Your task to perform on an android device: Go to network settings Image 0: 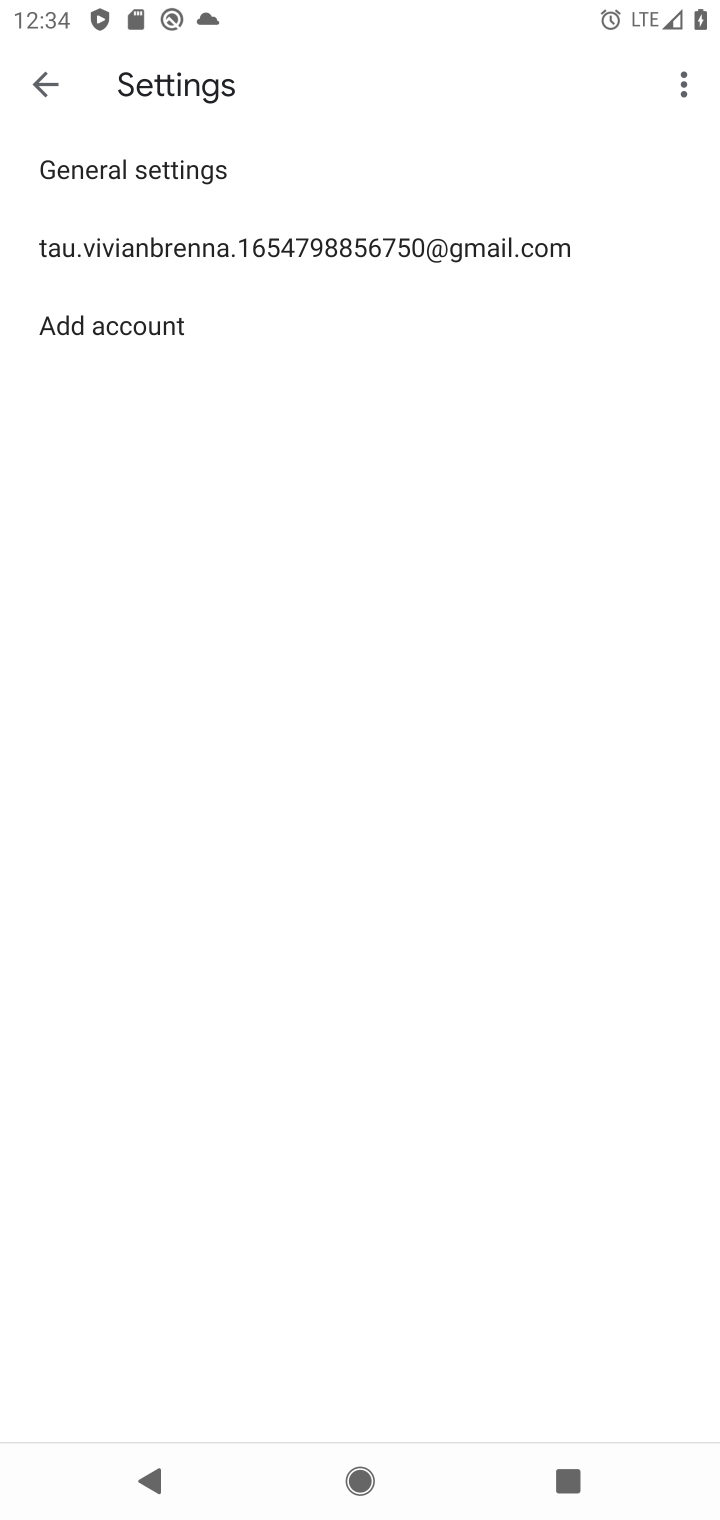
Step 0: click (38, 81)
Your task to perform on an android device: Go to network settings Image 1: 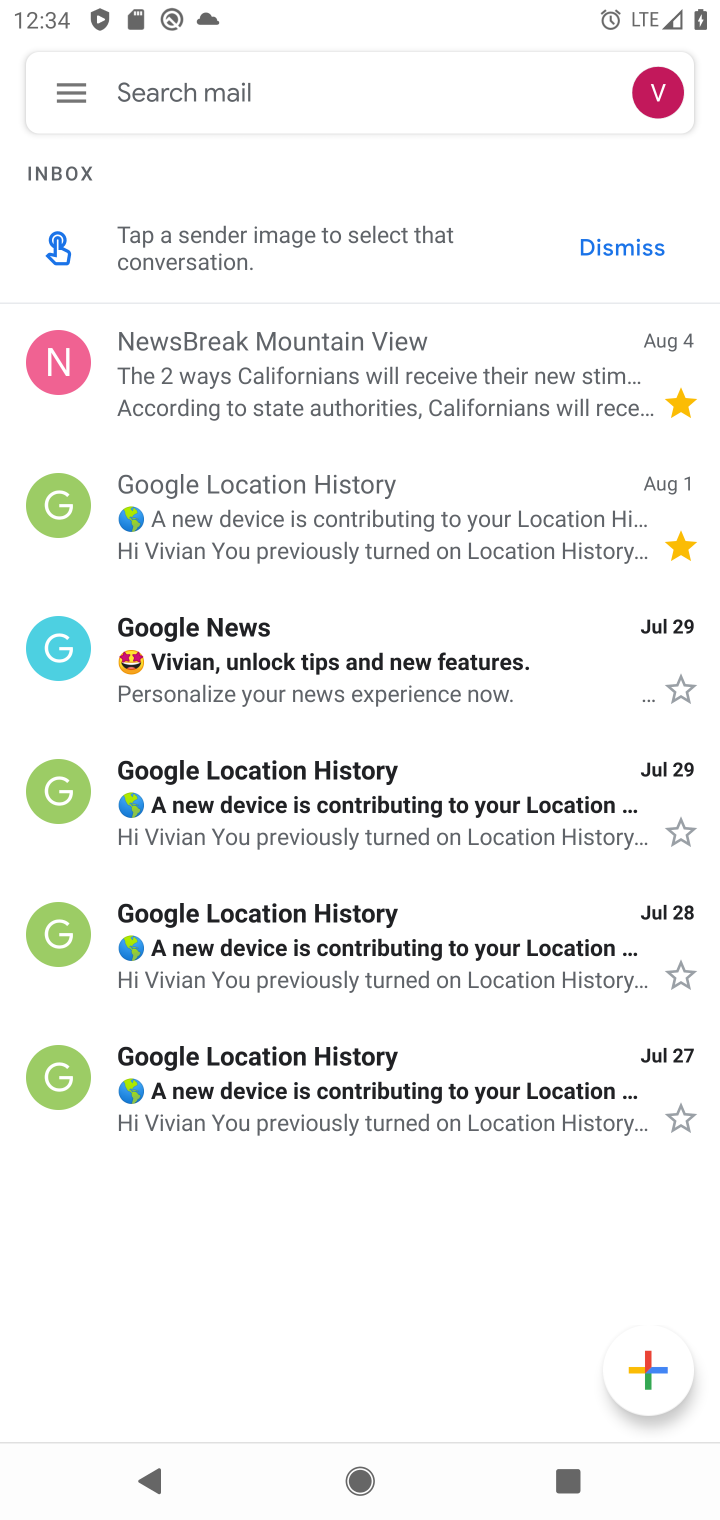
Step 1: press back button
Your task to perform on an android device: Go to network settings Image 2: 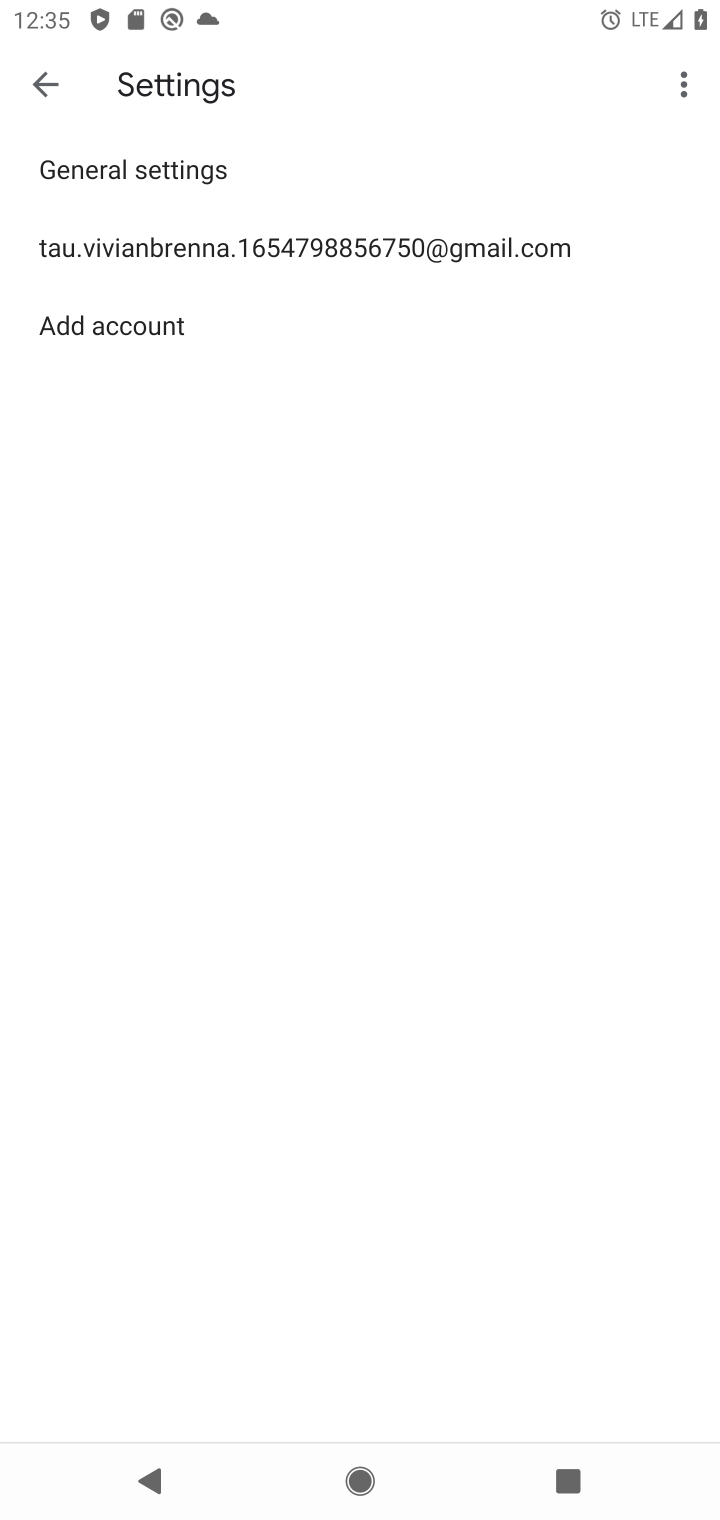
Step 2: press back button
Your task to perform on an android device: Go to network settings Image 3: 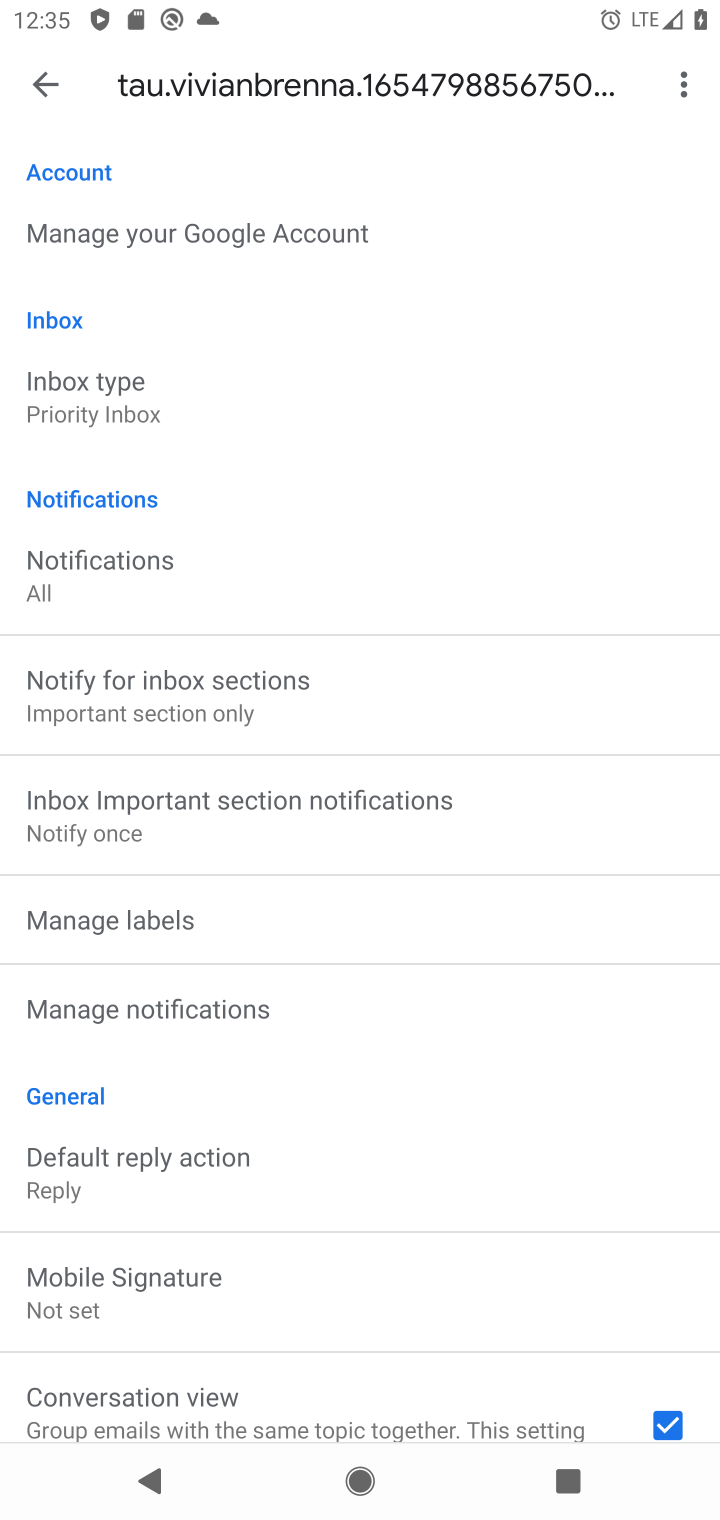
Step 3: press home button
Your task to perform on an android device: Go to network settings Image 4: 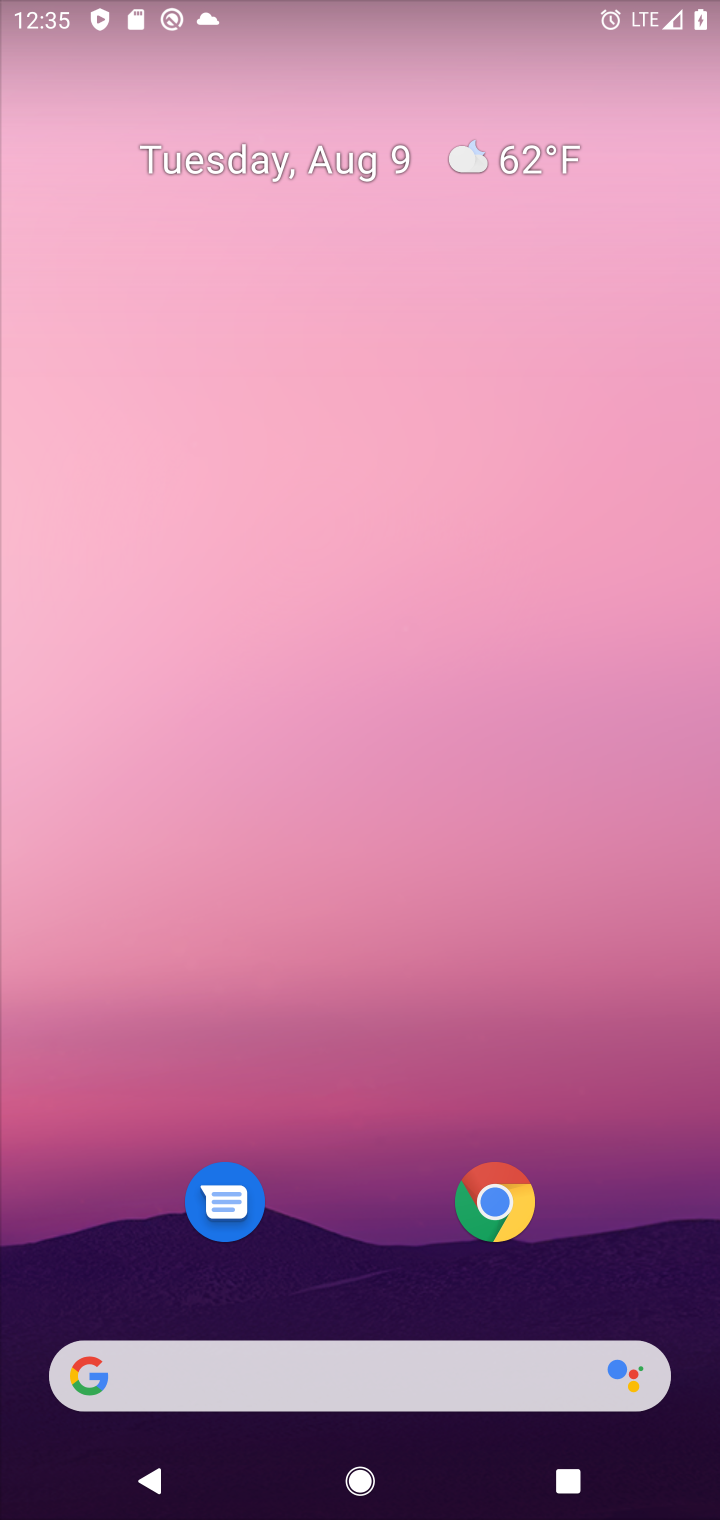
Step 4: drag from (404, 481) to (471, 209)
Your task to perform on an android device: Go to network settings Image 5: 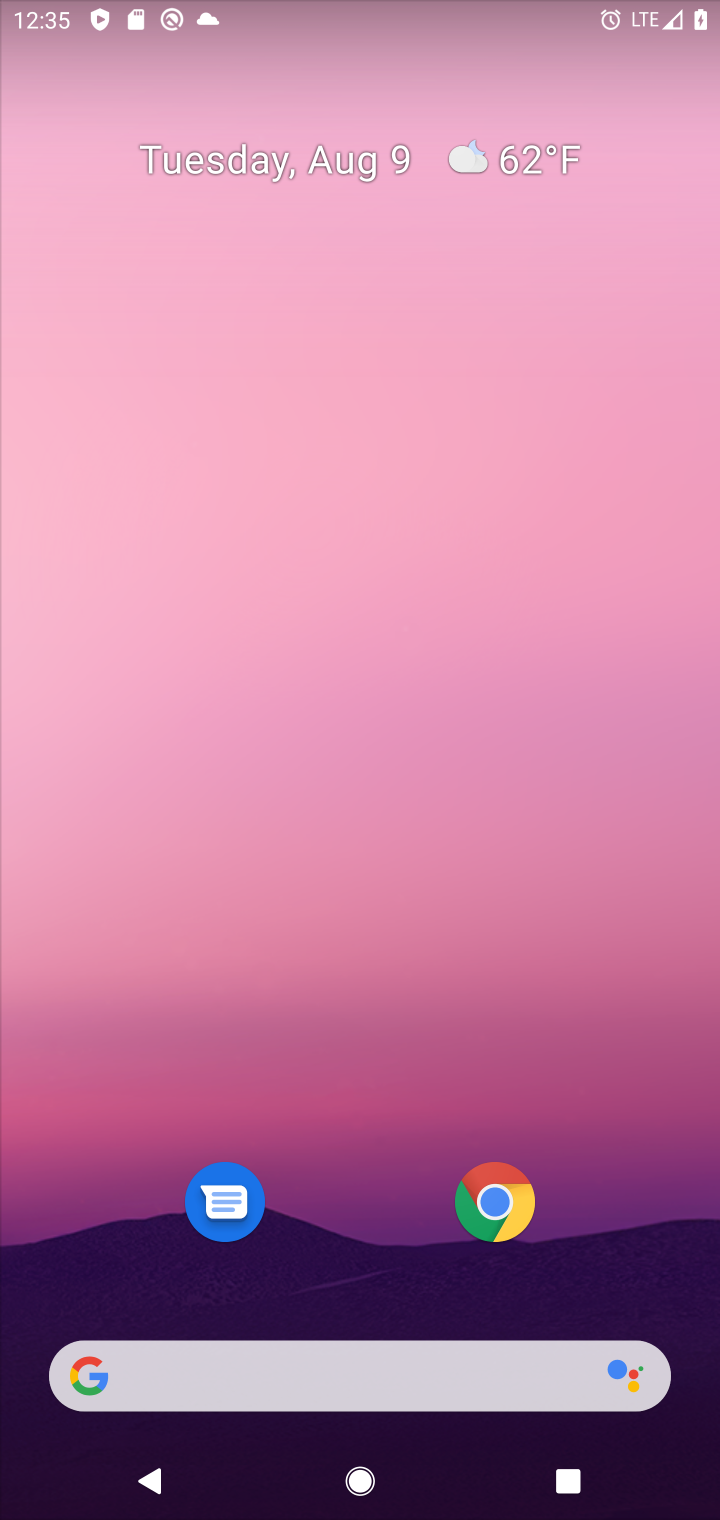
Step 5: click (342, 177)
Your task to perform on an android device: Go to network settings Image 6: 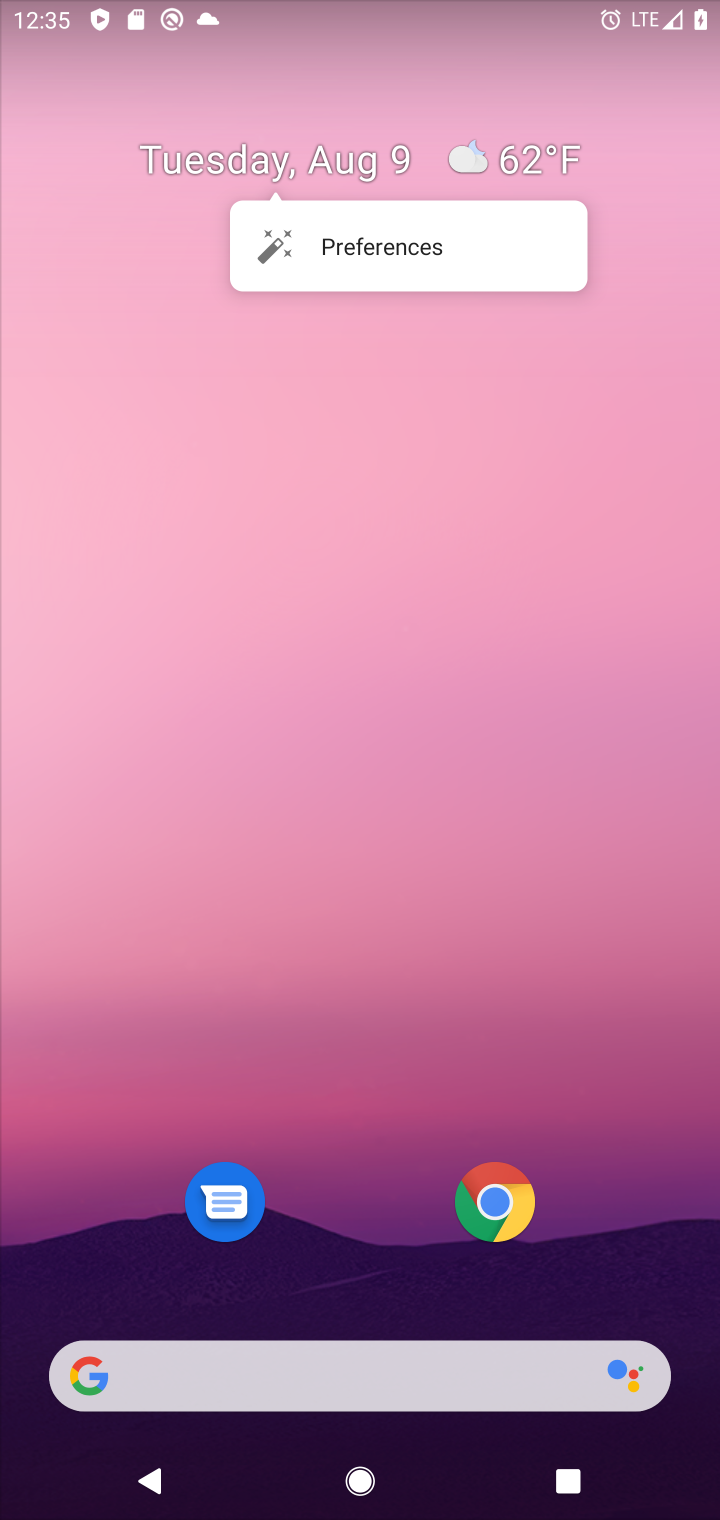
Step 6: drag from (325, 1303) to (452, 268)
Your task to perform on an android device: Go to network settings Image 7: 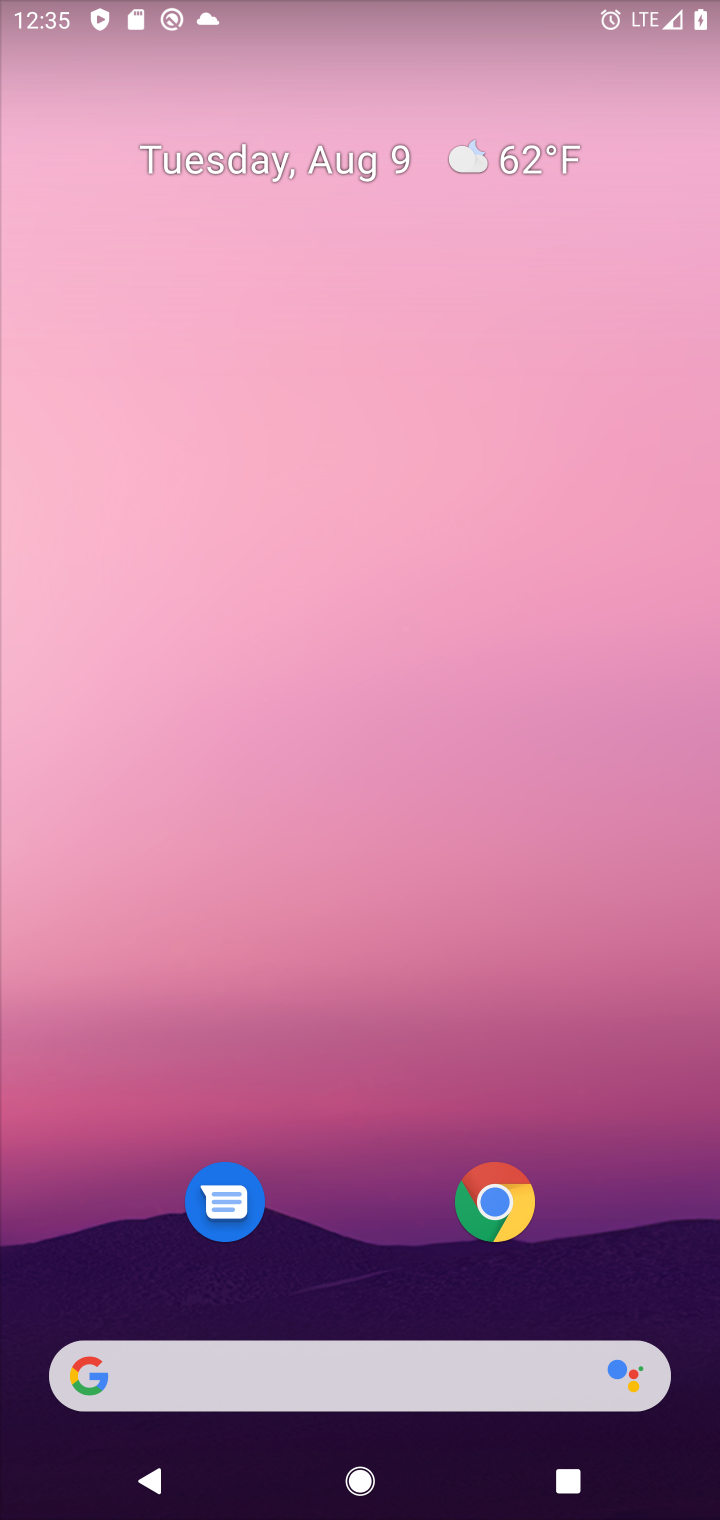
Step 7: drag from (341, 1232) to (409, 475)
Your task to perform on an android device: Go to network settings Image 8: 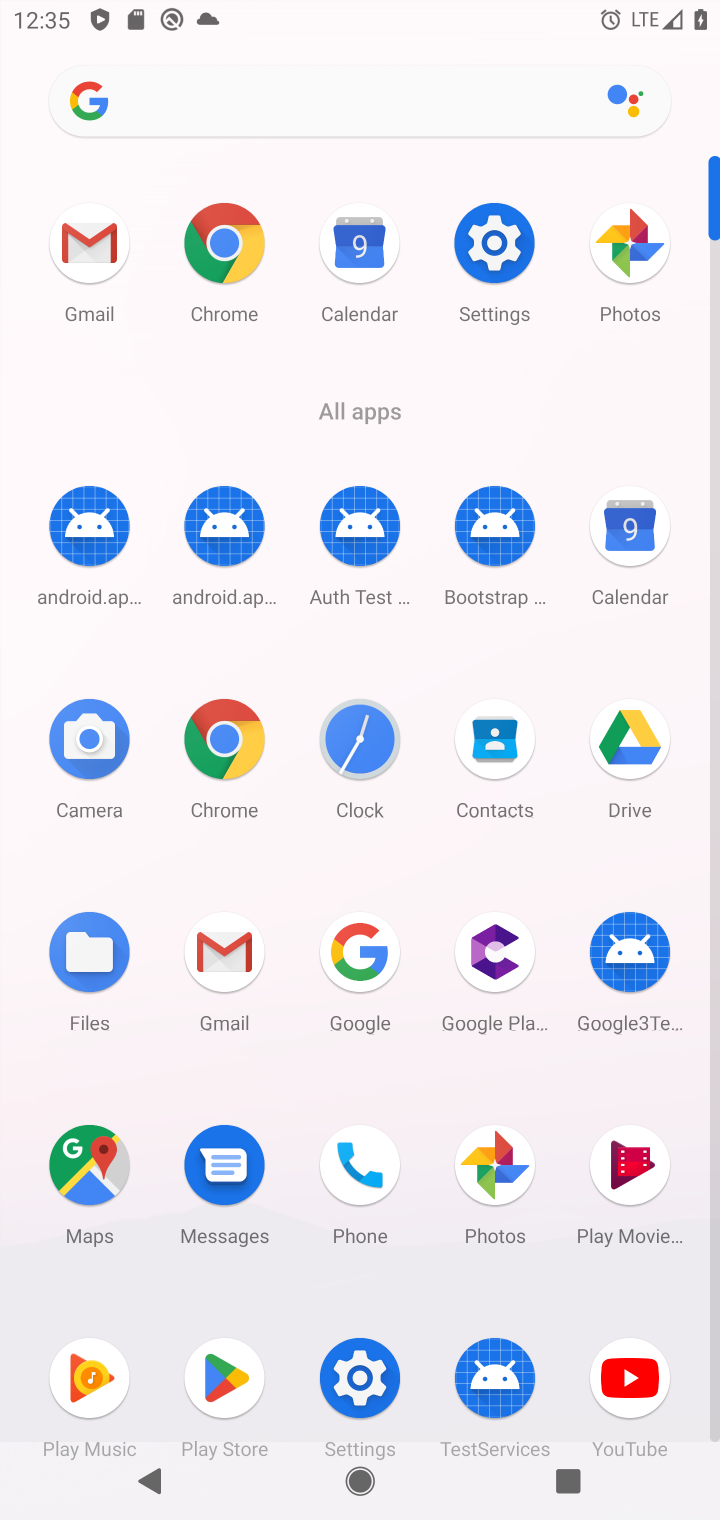
Step 8: click (347, 1385)
Your task to perform on an android device: Go to network settings Image 9: 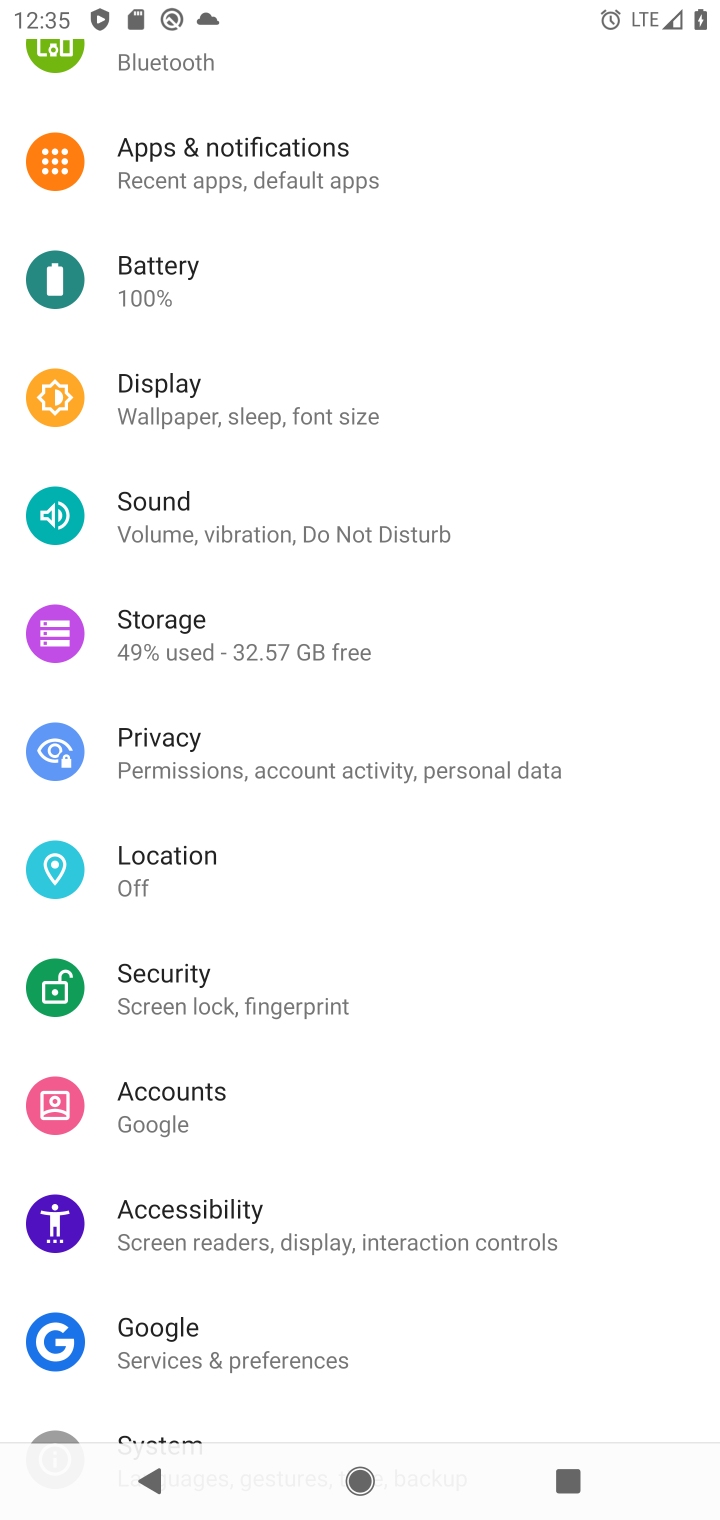
Step 9: drag from (420, 484) to (275, 1359)
Your task to perform on an android device: Go to network settings Image 10: 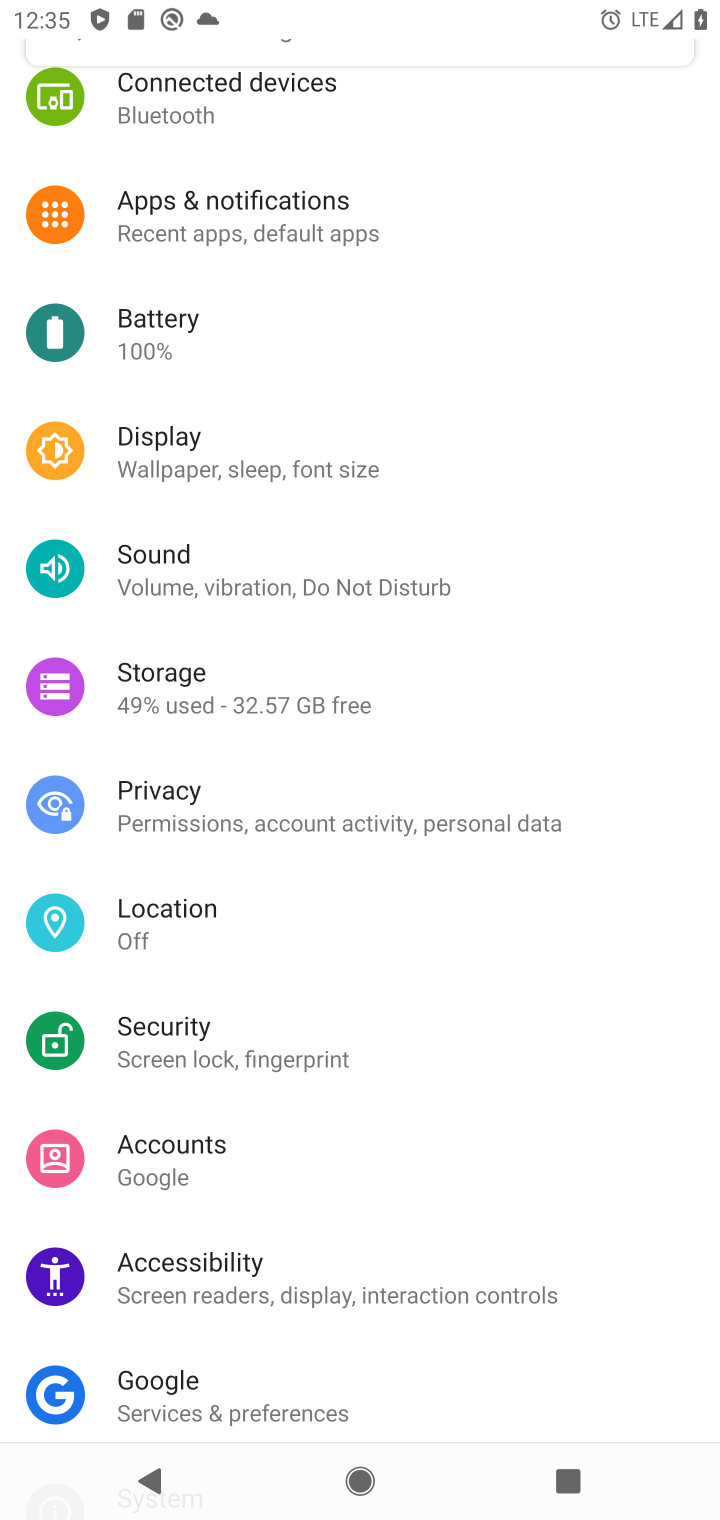
Step 10: drag from (306, 330) to (175, 1168)
Your task to perform on an android device: Go to network settings Image 11: 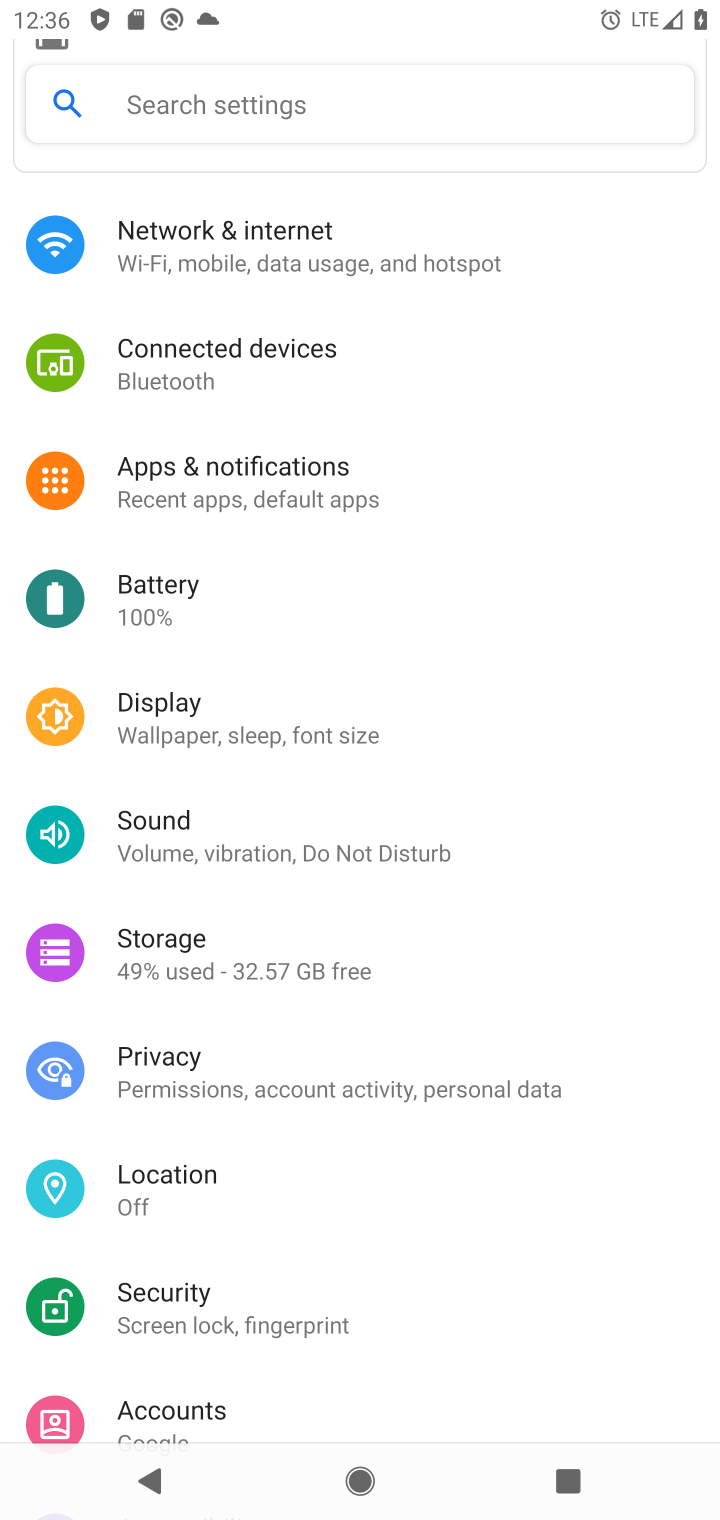
Step 11: click (235, 228)
Your task to perform on an android device: Go to network settings Image 12: 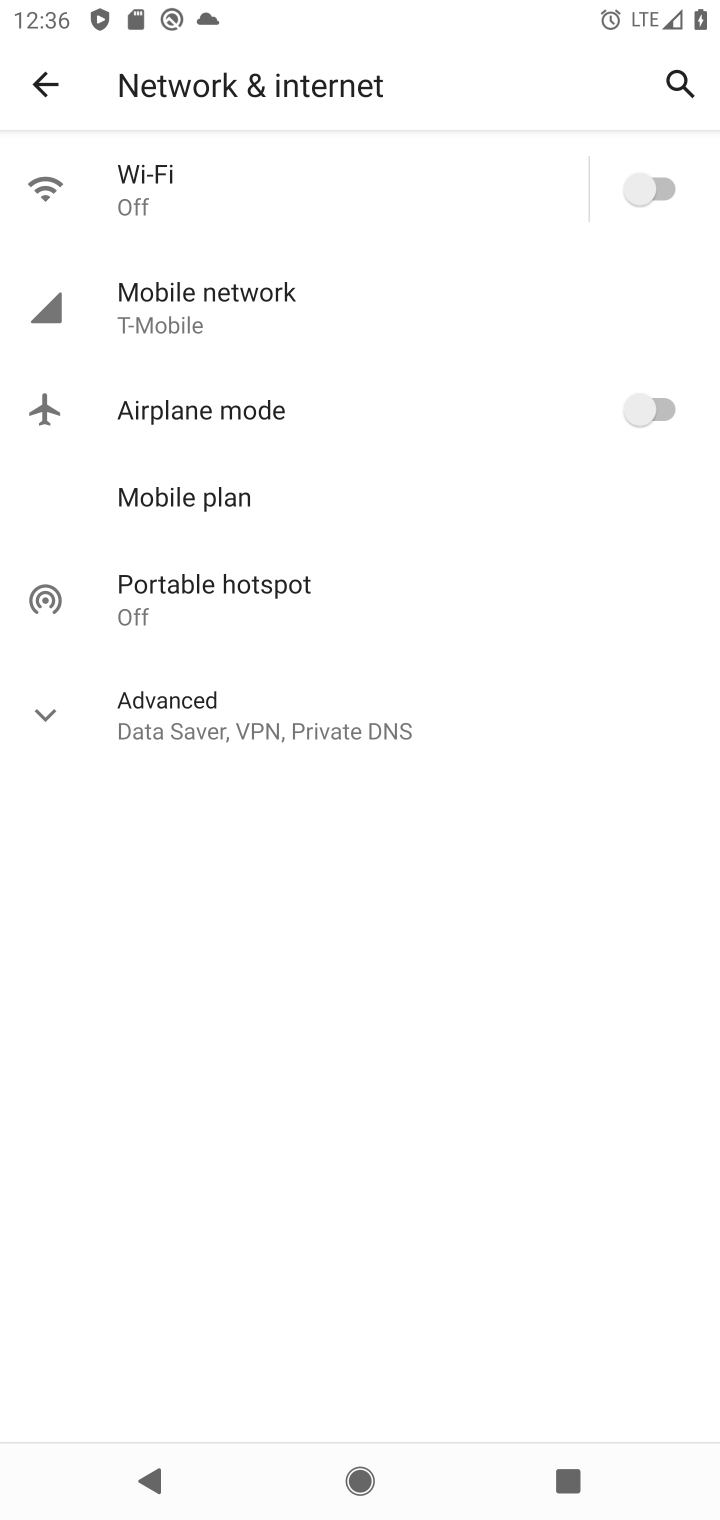
Step 12: task complete